Your task to perform on an android device: Go to sound settings Image 0: 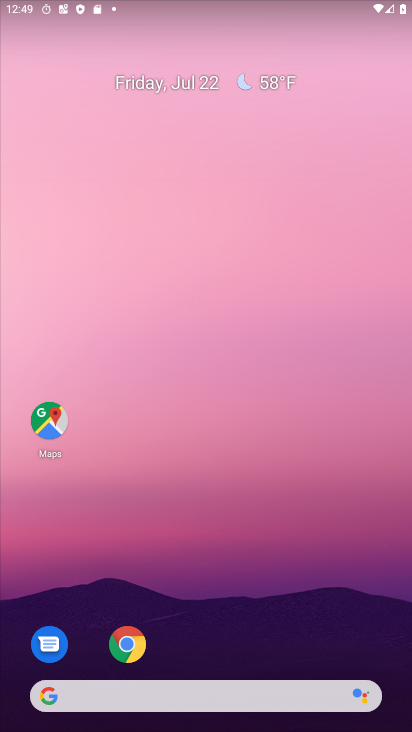
Step 0: drag from (172, 421) to (169, 161)
Your task to perform on an android device: Go to sound settings Image 1: 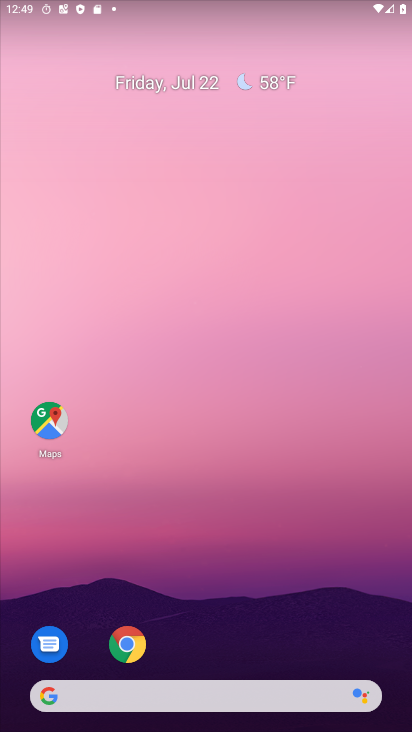
Step 1: drag from (174, 644) to (234, 27)
Your task to perform on an android device: Go to sound settings Image 2: 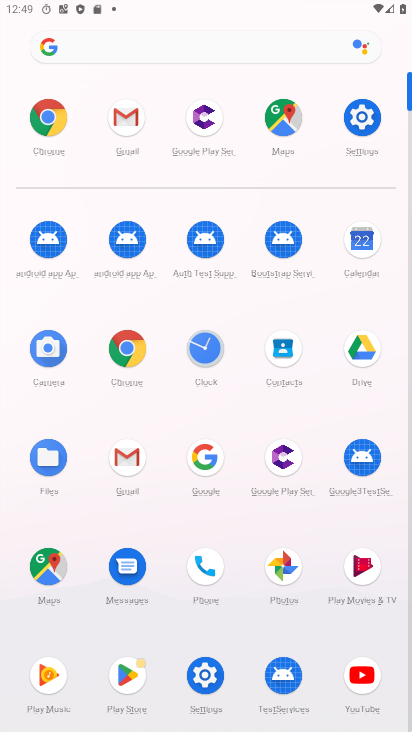
Step 2: click (362, 106)
Your task to perform on an android device: Go to sound settings Image 3: 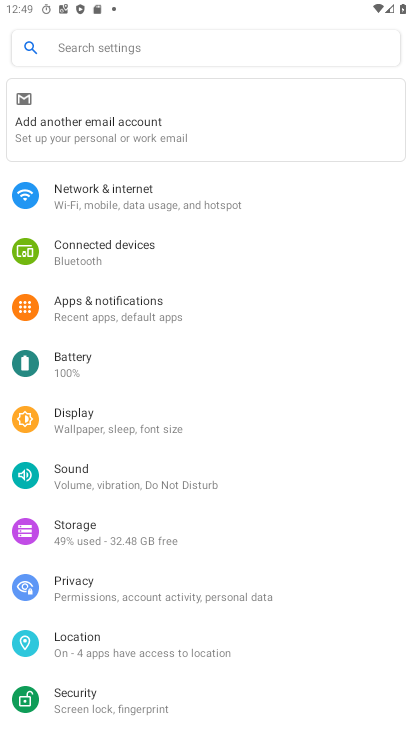
Step 3: click (84, 463)
Your task to perform on an android device: Go to sound settings Image 4: 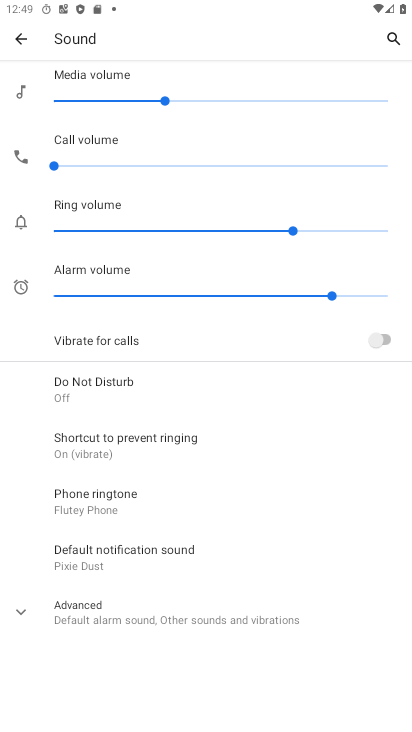
Step 4: task complete